Your task to perform on an android device: check android version Image 0: 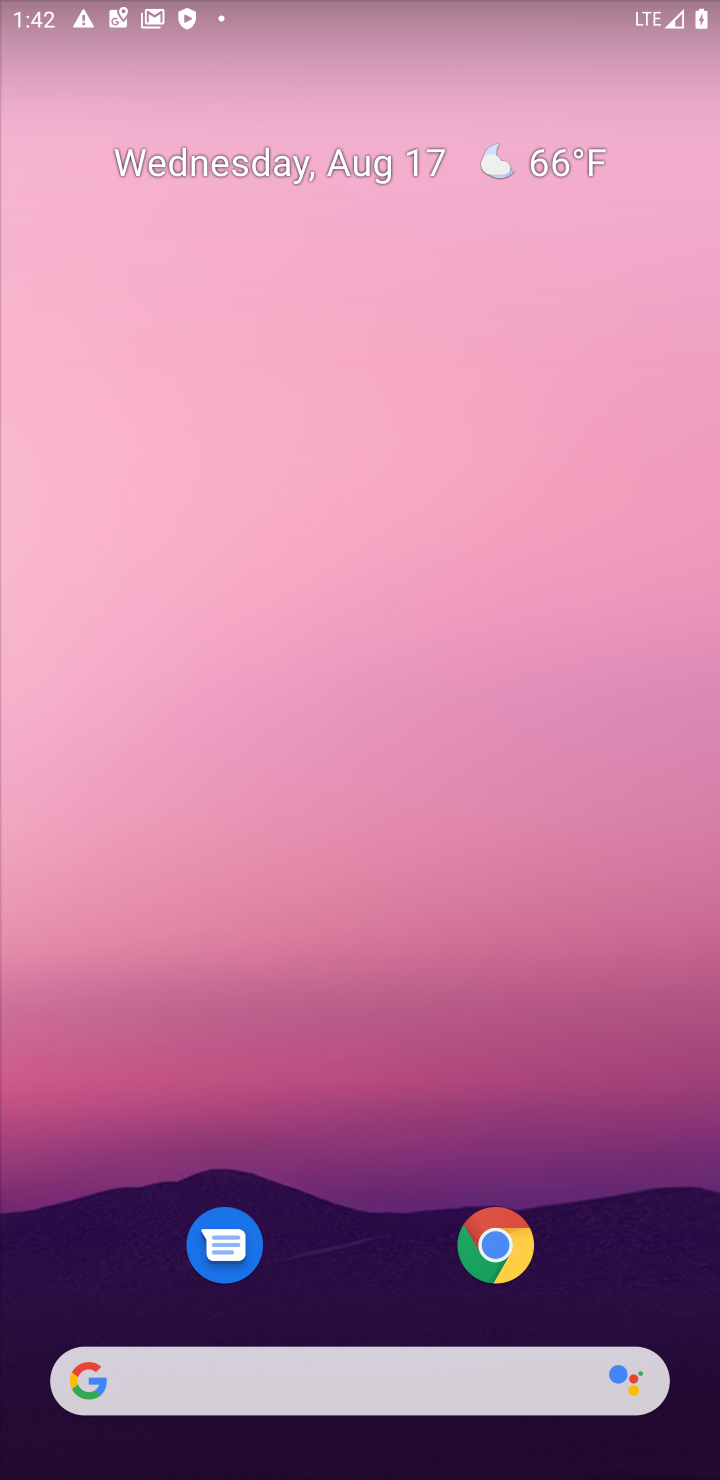
Step 0: drag from (379, 1241) to (439, 203)
Your task to perform on an android device: check android version Image 1: 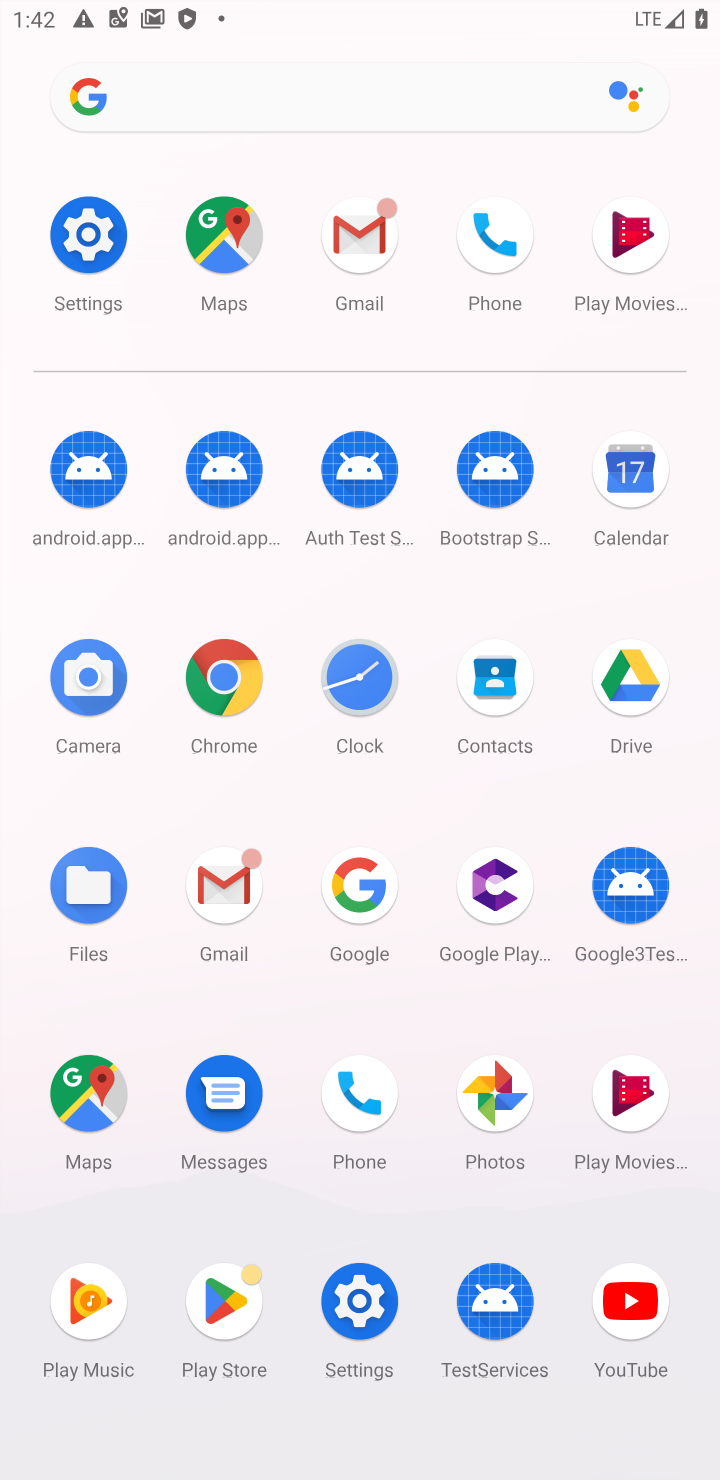
Step 1: click (353, 1299)
Your task to perform on an android device: check android version Image 2: 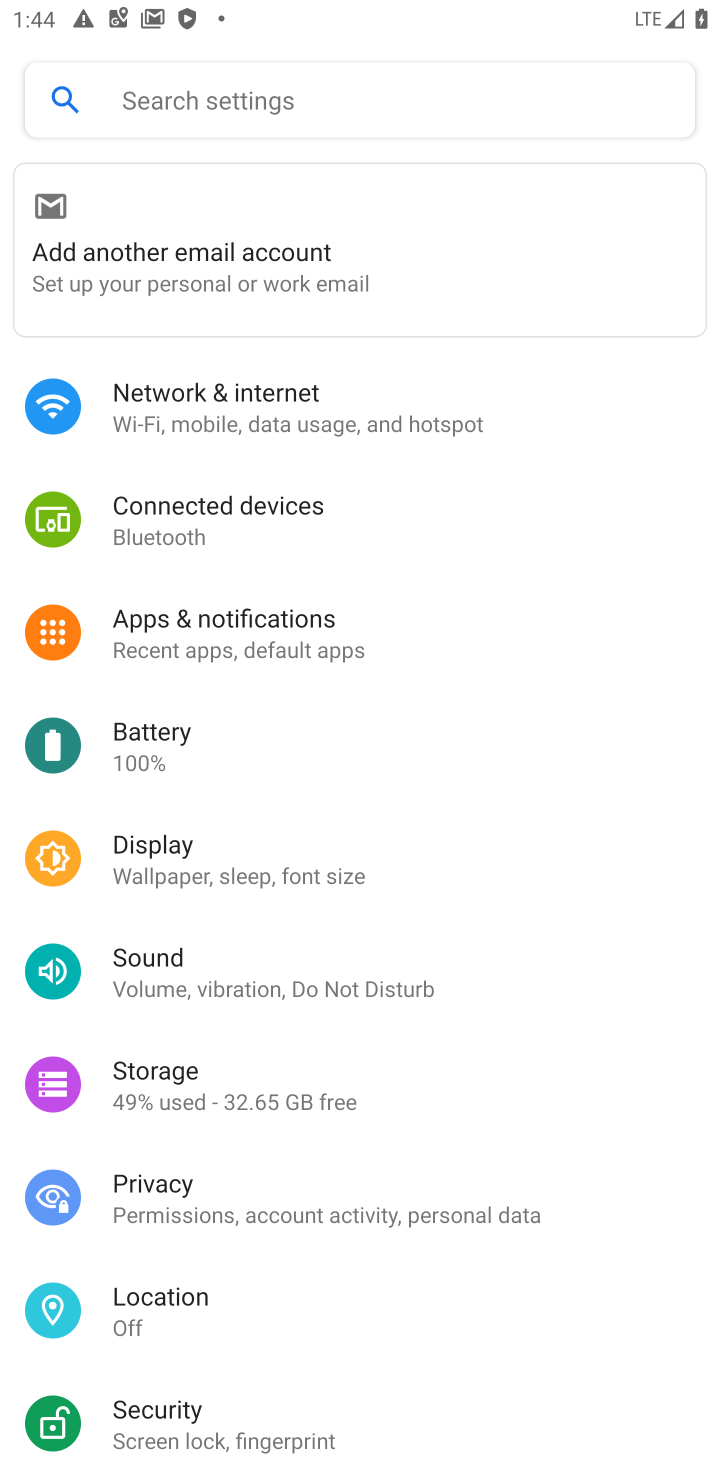
Step 2: drag from (223, 1196) to (223, 611)
Your task to perform on an android device: check android version Image 3: 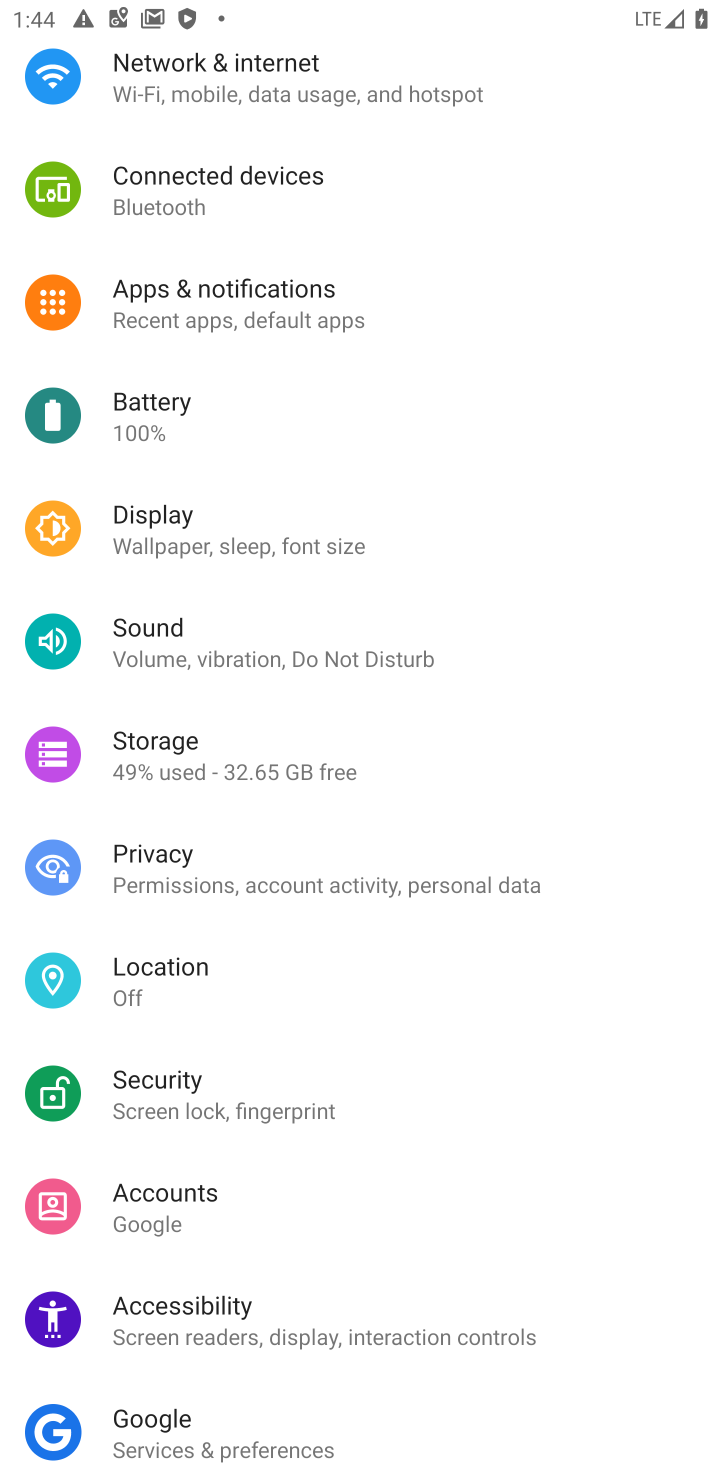
Step 3: drag from (274, 1322) to (233, 408)
Your task to perform on an android device: check android version Image 4: 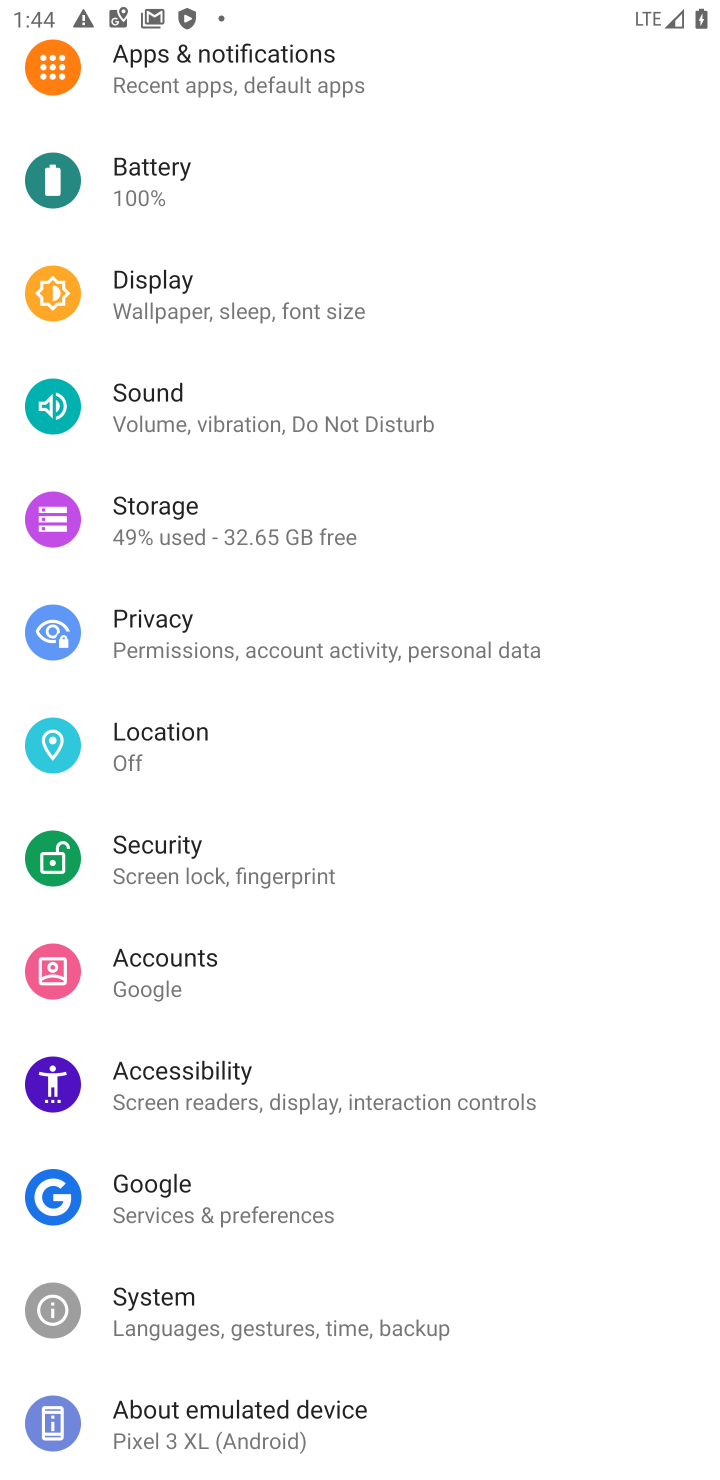
Step 4: drag from (255, 1001) to (220, 588)
Your task to perform on an android device: check android version Image 5: 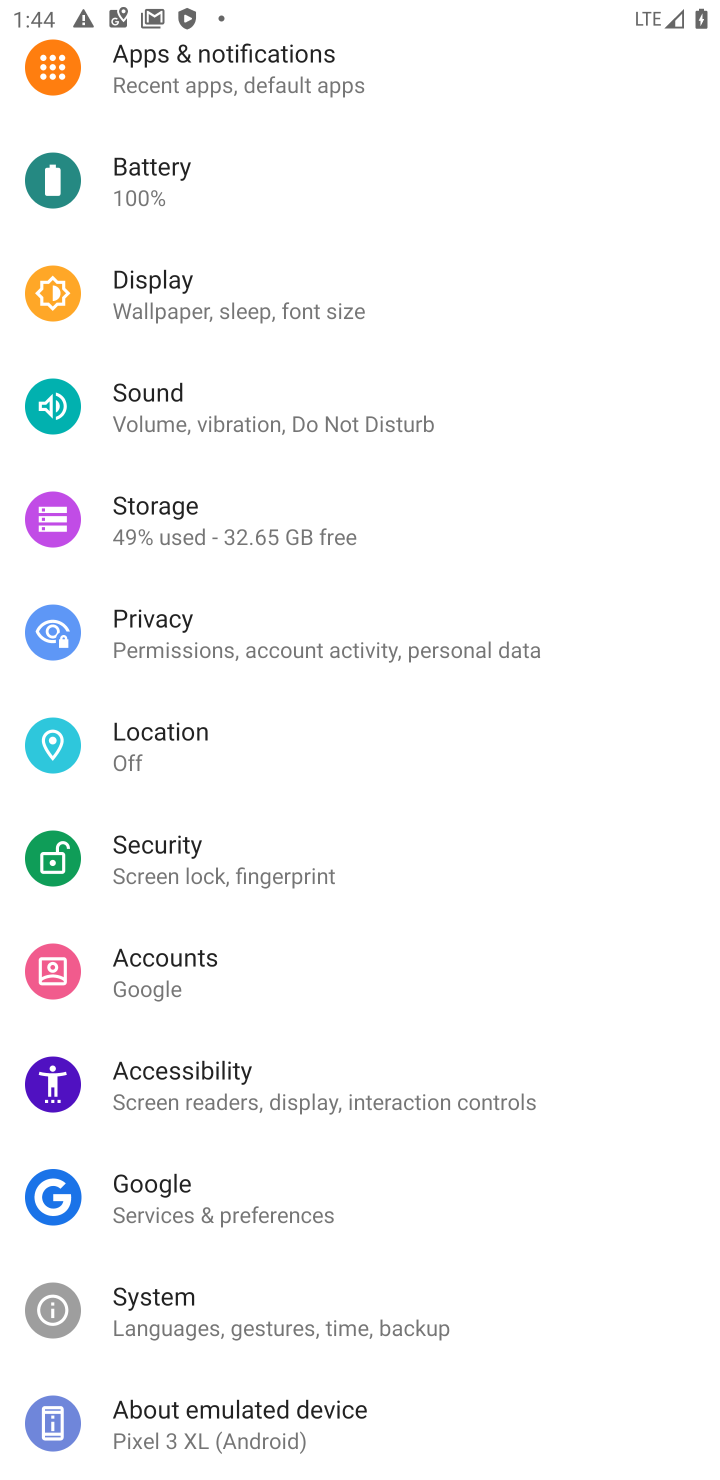
Step 5: click (203, 1434)
Your task to perform on an android device: check android version Image 6: 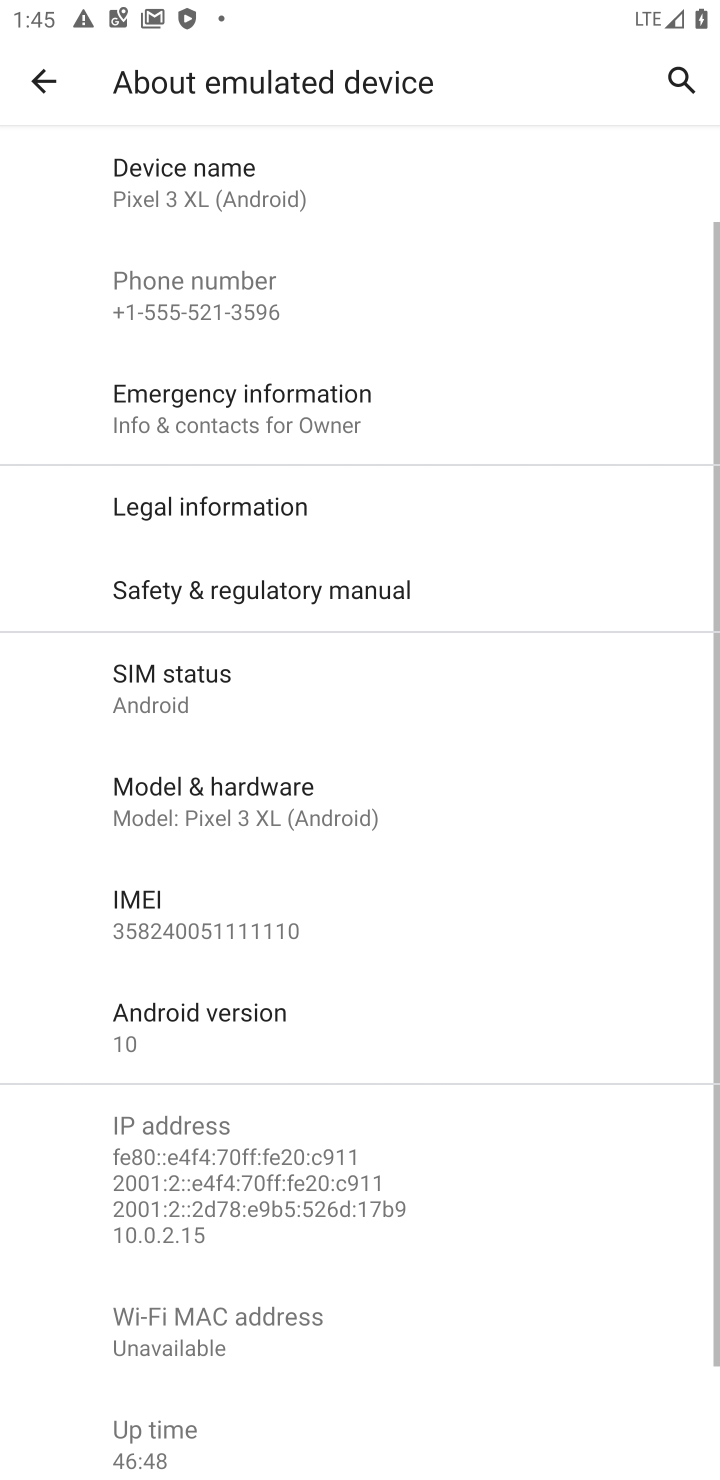
Step 6: click (164, 1013)
Your task to perform on an android device: check android version Image 7: 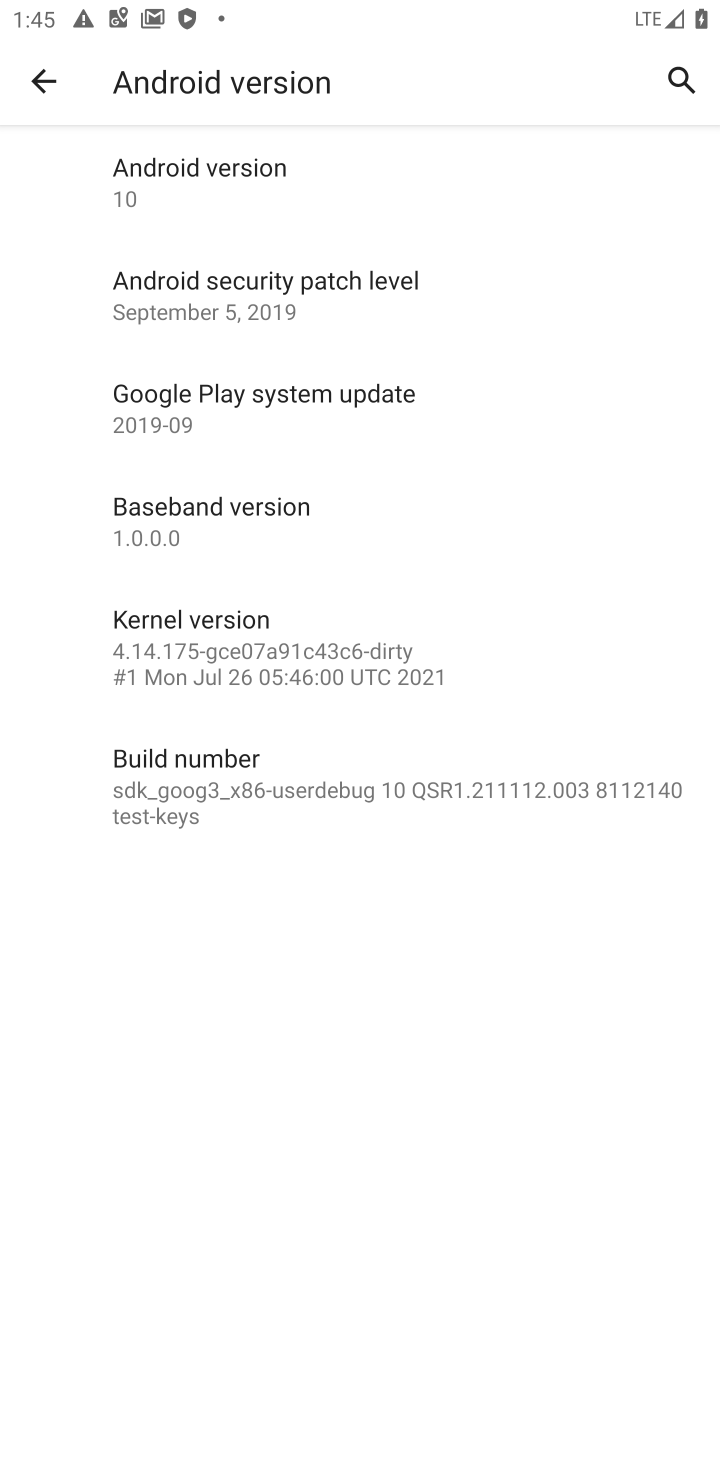
Step 7: task complete